Your task to perform on an android device: check battery use Image 0: 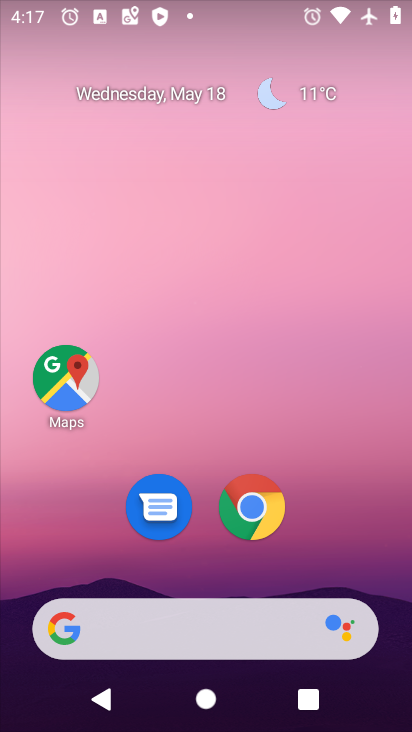
Step 0: drag from (393, 620) to (349, 81)
Your task to perform on an android device: check battery use Image 1: 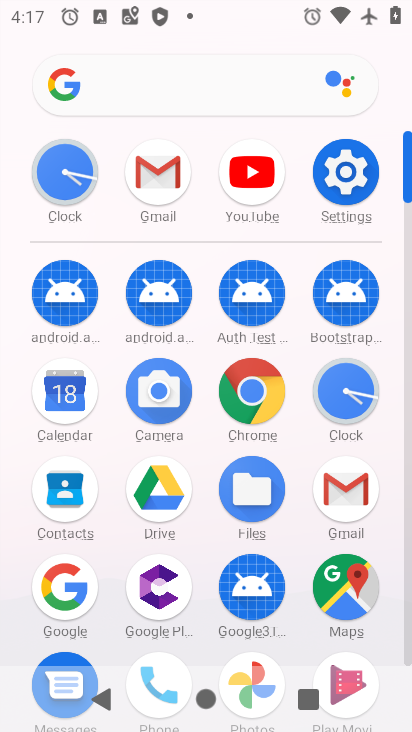
Step 1: click (406, 656)
Your task to perform on an android device: check battery use Image 2: 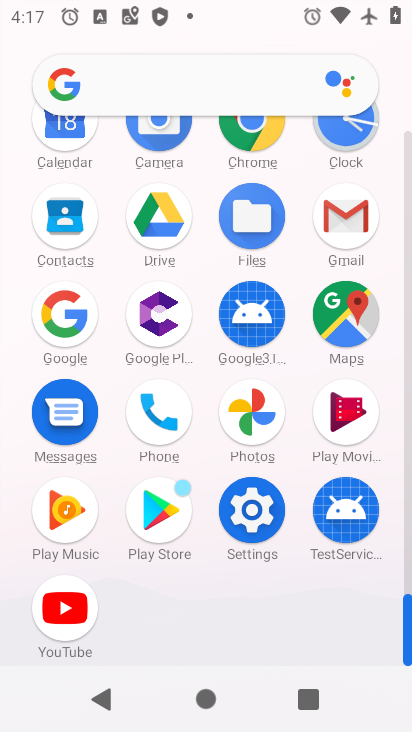
Step 2: click (252, 511)
Your task to perform on an android device: check battery use Image 3: 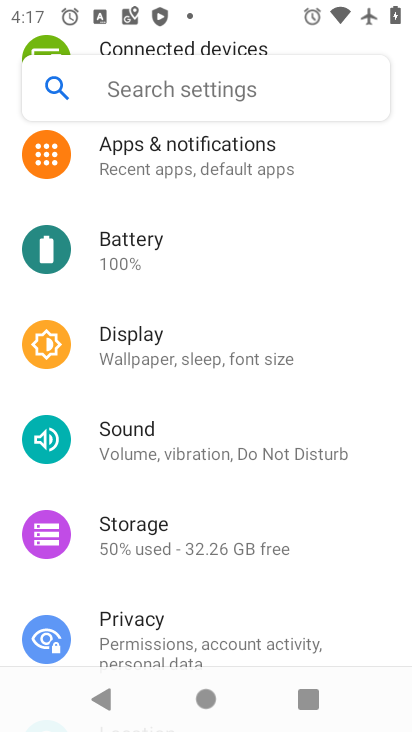
Step 3: click (123, 236)
Your task to perform on an android device: check battery use Image 4: 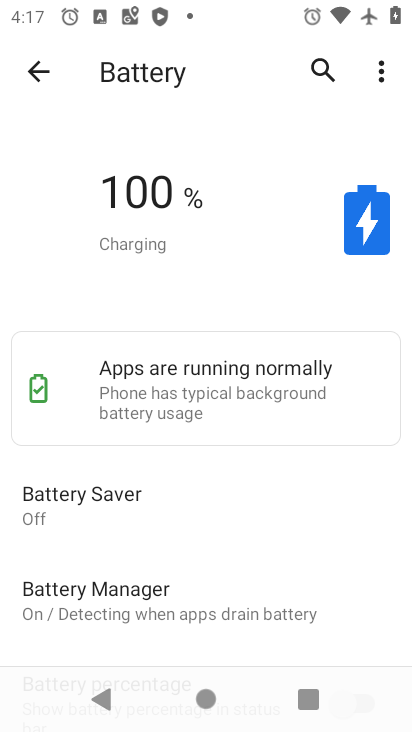
Step 4: drag from (293, 603) to (282, 247)
Your task to perform on an android device: check battery use Image 5: 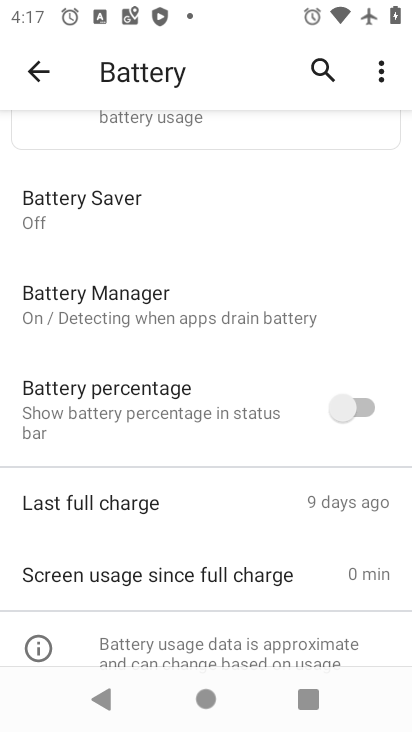
Step 5: drag from (298, 533) to (282, 186)
Your task to perform on an android device: check battery use Image 6: 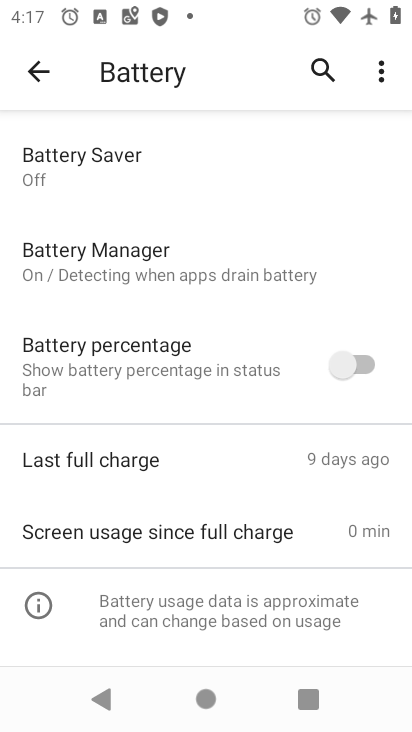
Step 6: click (378, 75)
Your task to perform on an android device: check battery use Image 7: 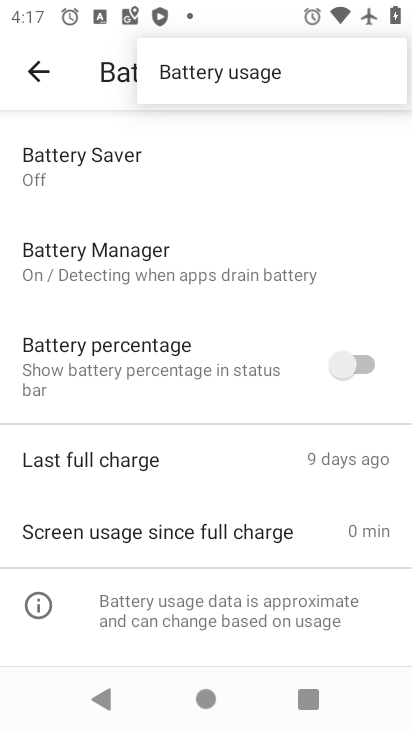
Step 7: click (214, 72)
Your task to perform on an android device: check battery use Image 8: 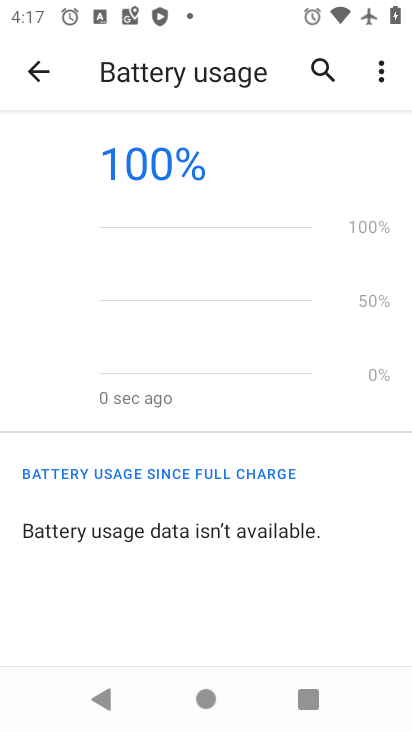
Step 8: task complete